Your task to perform on an android device: Search for a cheap bike on Walmart Image 0: 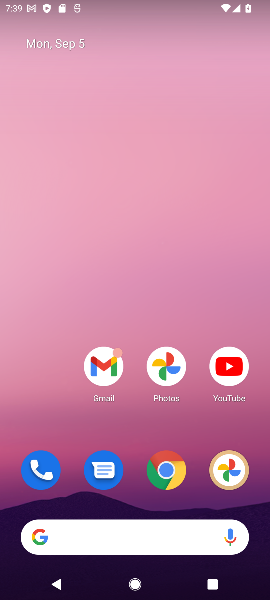
Step 0: drag from (137, 215) to (137, 21)
Your task to perform on an android device: Search for a cheap bike on Walmart Image 1: 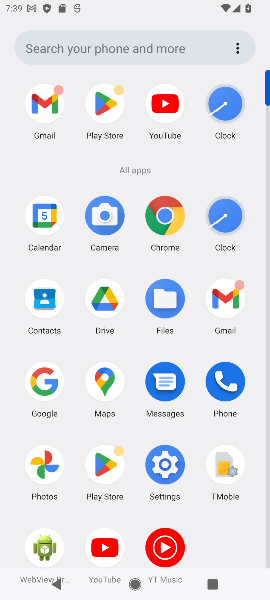
Step 1: click (41, 385)
Your task to perform on an android device: Search for a cheap bike on Walmart Image 2: 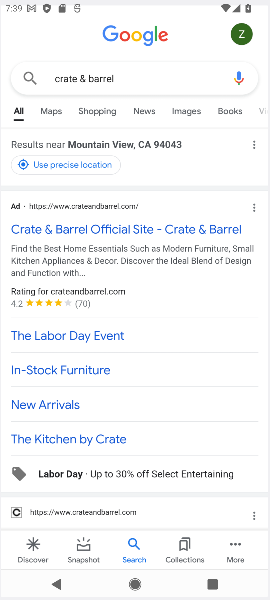
Step 2: click (155, 83)
Your task to perform on an android device: Search for a cheap bike on Walmart Image 3: 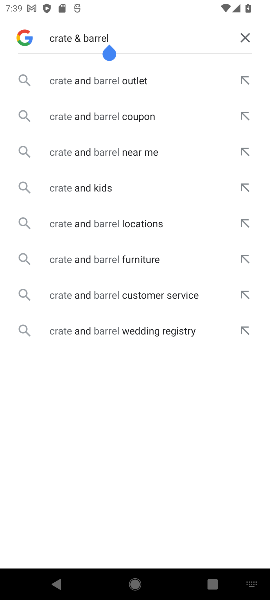
Step 3: click (242, 36)
Your task to perform on an android device: Search for a cheap bike on Walmart Image 4: 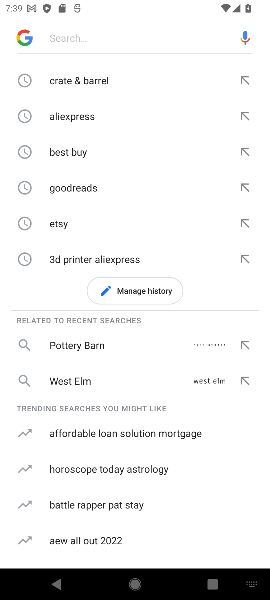
Step 4: type "Walmart"
Your task to perform on an android device: Search for a cheap bike on Walmart Image 5: 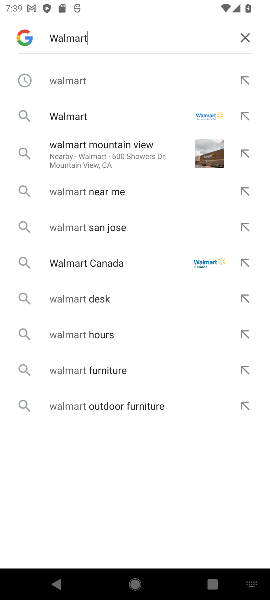
Step 5: click (80, 86)
Your task to perform on an android device: Search for a cheap bike on Walmart Image 6: 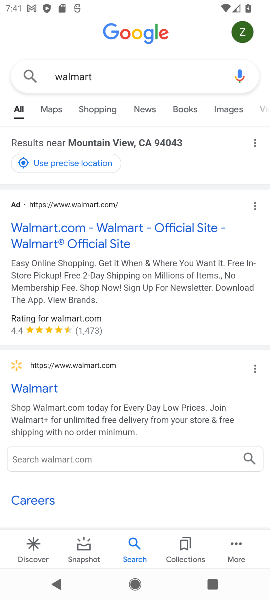
Step 6: click (74, 244)
Your task to perform on an android device: Search for a cheap bike on Walmart Image 7: 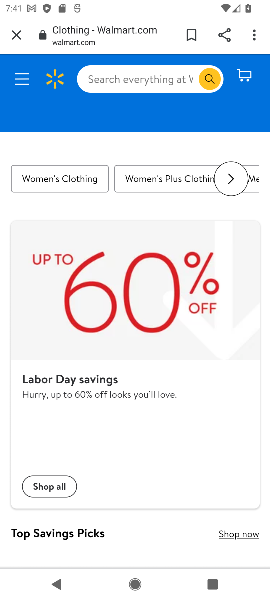
Step 7: click (123, 72)
Your task to perform on an android device: Search for a cheap bike on Walmart Image 8: 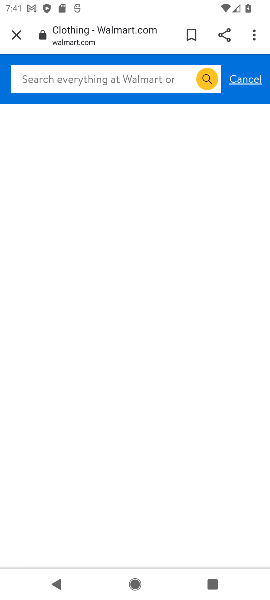
Step 8: type "cheap bike"
Your task to perform on an android device: Search for a cheap bike on Walmart Image 9: 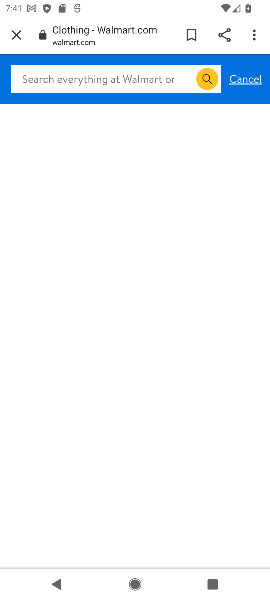
Step 9: click (213, 81)
Your task to perform on an android device: Search for a cheap bike on Walmart Image 10: 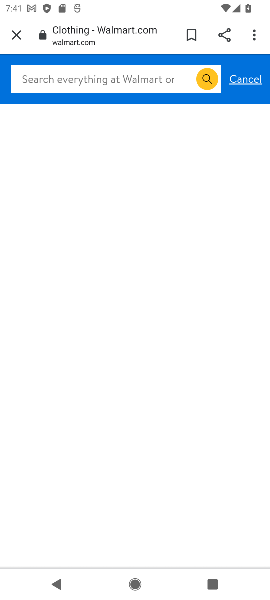
Step 10: click (187, 80)
Your task to perform on an android device: Search for a cheap bike on Walmart Image 11: 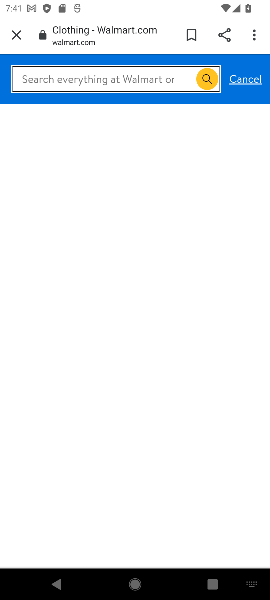
Step 11: type "cheap bike"
Your task to perform on an android device: Search for a cheap bike on Walmart Image 12: 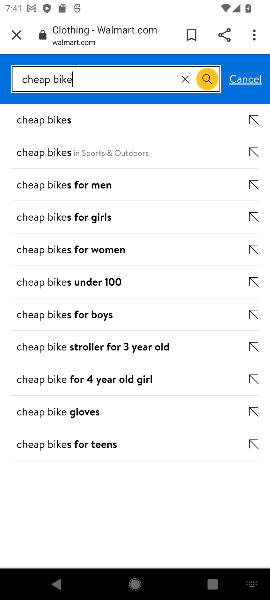
Step 12: click (42, 123)
Your task to perform on an android device: Search for a cheap bike on Walmart Image 13: 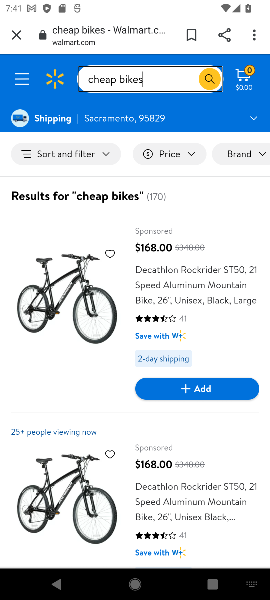
Step 13: task complete